Your task to perform on an android device: Open Android settings Image 0: 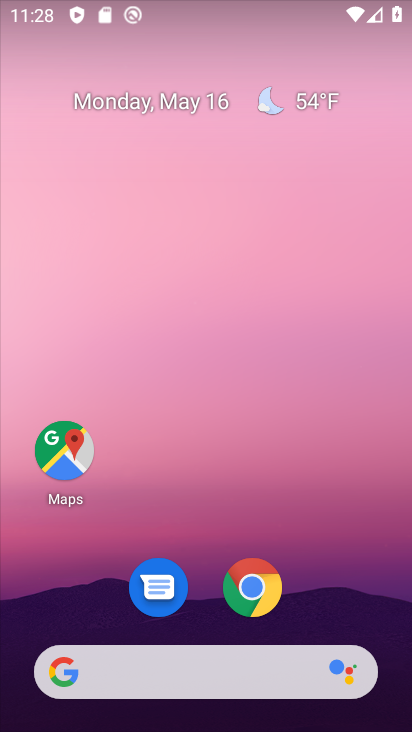
Step 0: drag from (203, 615) to (290, 192)
Your task to perform on an android device: Open Android settings Image 1: 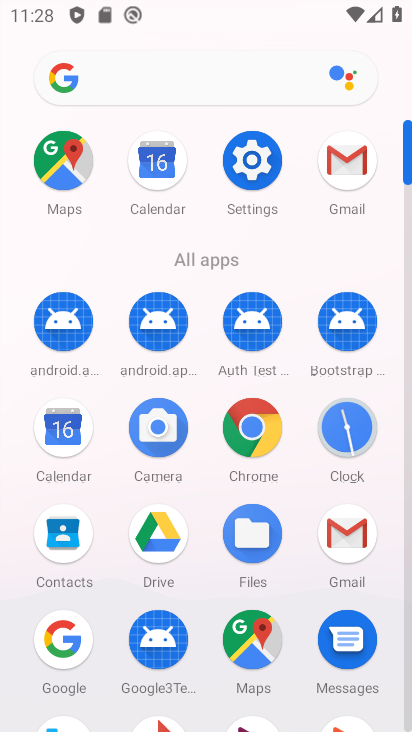
Step 1: click (270, 186)
Your task to perform on an android device: Open Android settings Image 2: 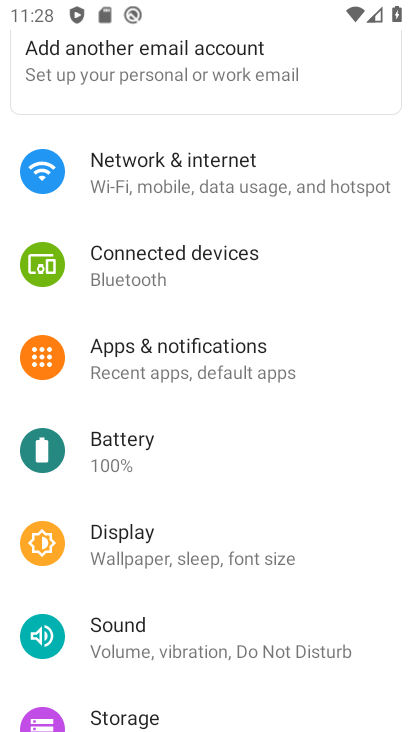
Step 2: drag from (172, 490) to (234, 159)
Your task to perform on an android device: Open Android settings Image 3: 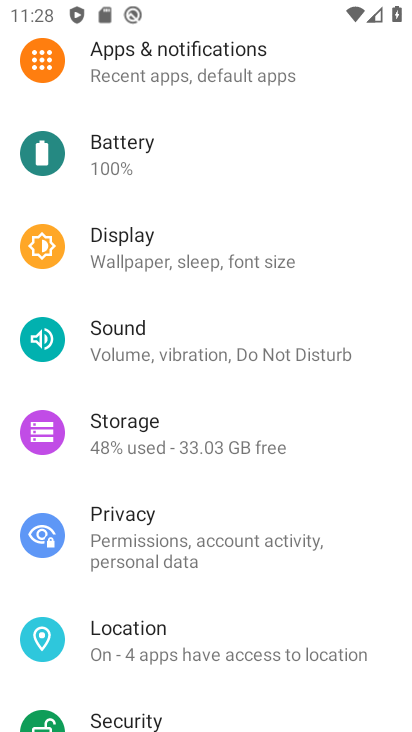
Step 3: drag from (194, 604) to (326, 122)
Your task to perform on an android device: Open Android settings Image 4: 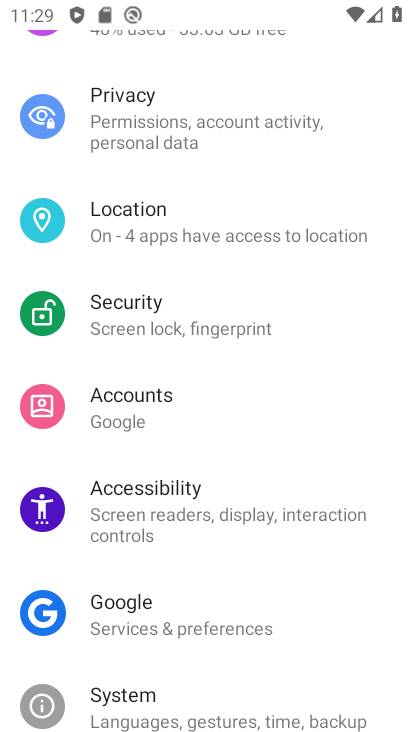
Step 4: drag from (238, 603) to (315, 173)
Your task to perform on an android device: Open Android settings Image 5: 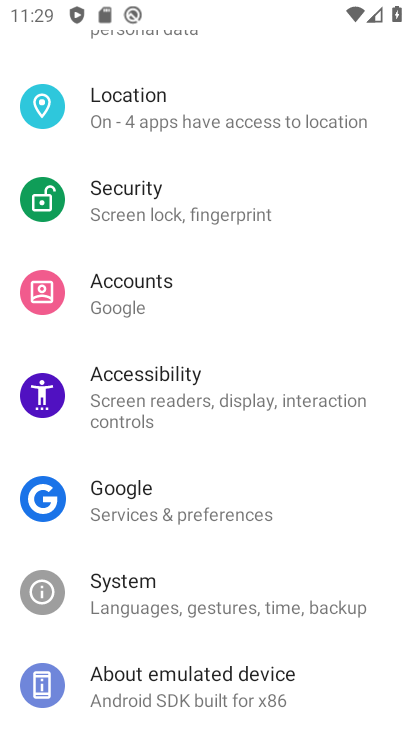
Step 5: click (188, 687)
Your task to perform on an android device: Open Android settings Image 6: 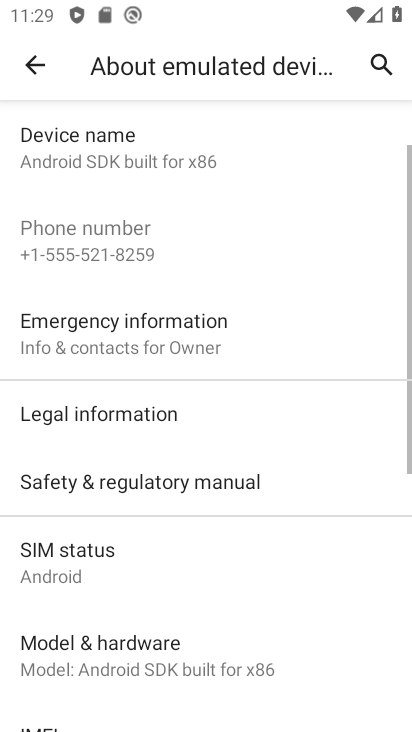
Step 6: drag from (128, 630) to (171, 343)
Your task to perform on an android device: Open Android settings Image 7: 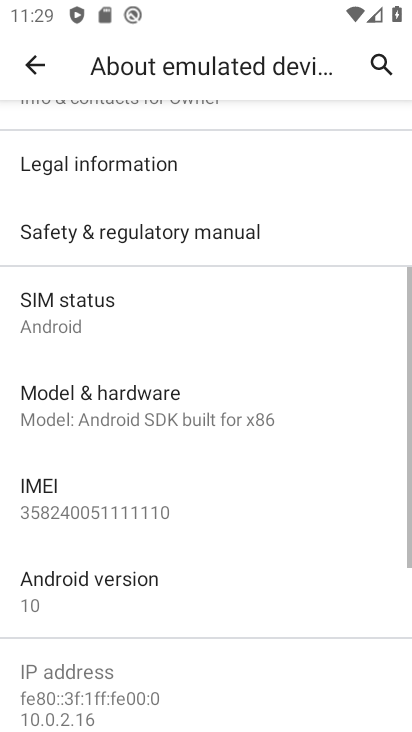
Step 7: drag from (116, 580) to (165, 282)
Your task to perform on an android device: Open Android settings Image 8: 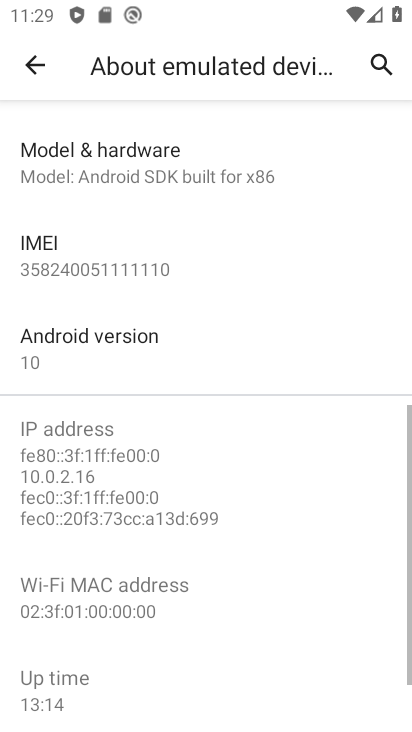
Step 8: click (123, 352)
Your task to perform on an android device: Open Android settings Image 9: 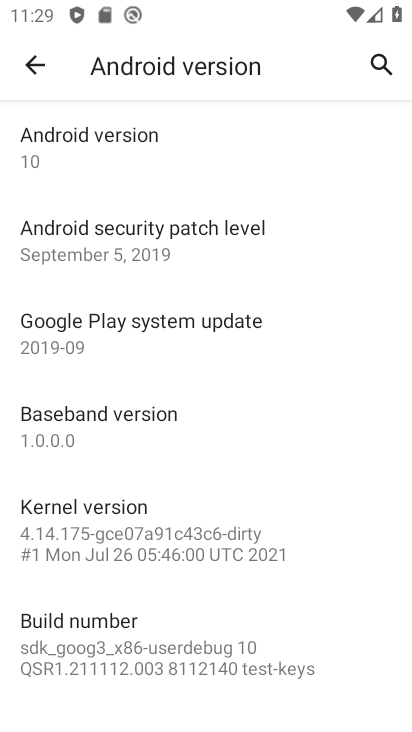
Step 9: task complete